Your task to perform on an android device: change the clock style Image 0: 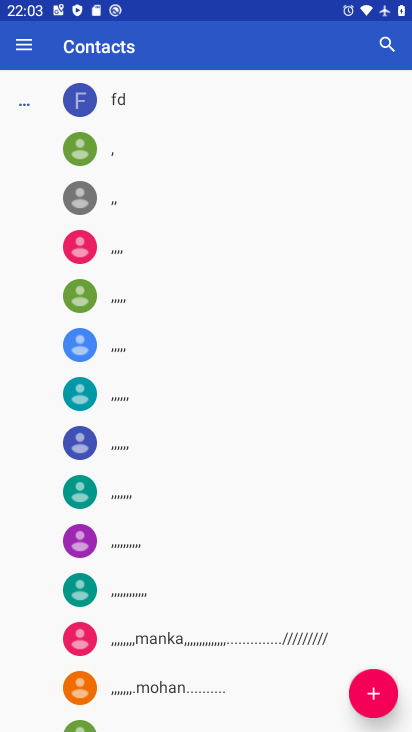
Step 0: press home button
Your task to perform on an android device: change the clock style Image 1: 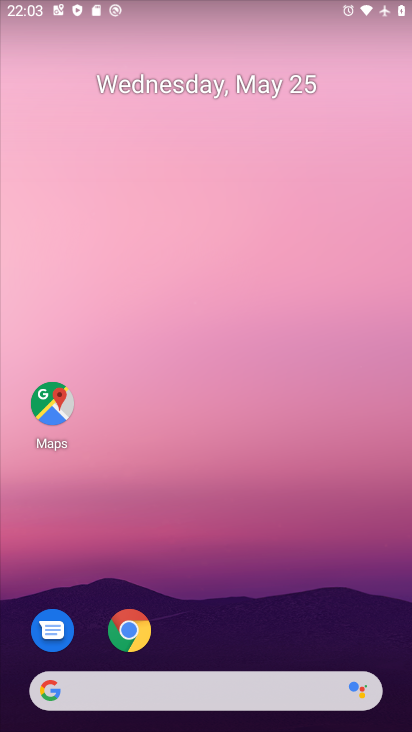
Step 1: drag from (267, 610) to (249, 224)
Your task to perform on an android device: change the clock style Image 2: 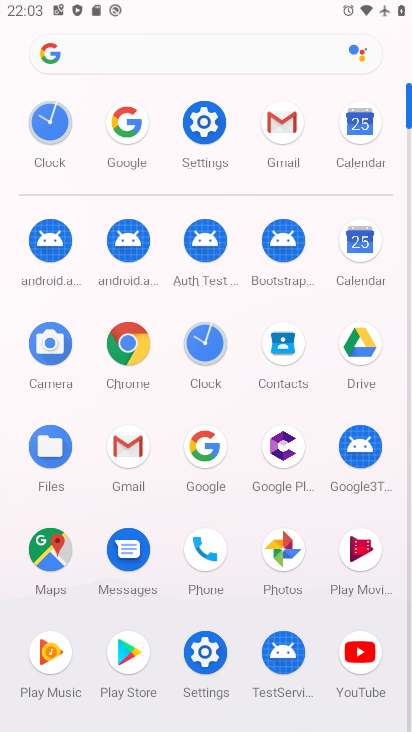
Step 2: click (212, 339)
Your task to perform on an android device: change the clock style Image 3: 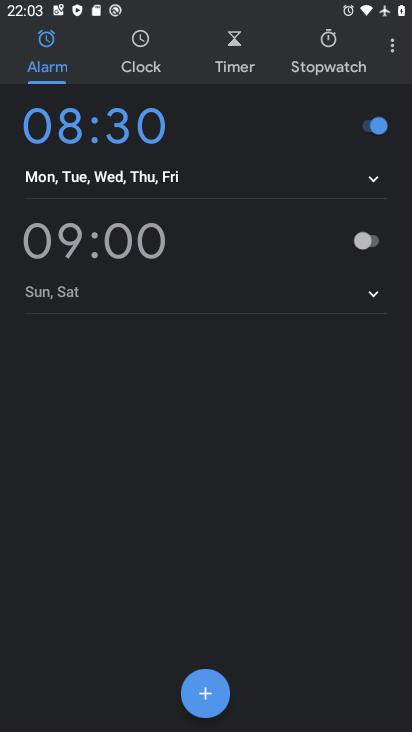
Step 3: click (386, 47)
Your task to perform on an android device: change the clock style Image 4: 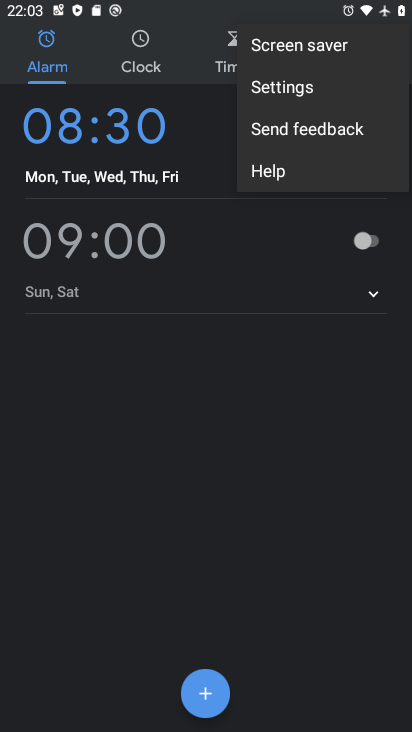
Step 4: click (303, 98)
Your task to perform on an android device: change the clock style Image 5: 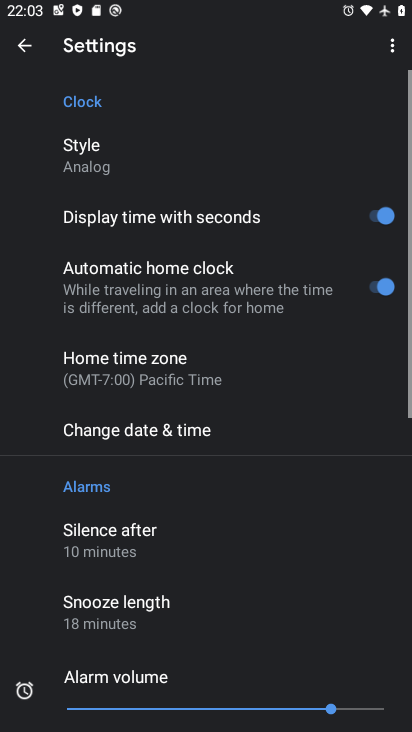
Step 5: click (209, 160)
Your task to perform on an android device: change the clock style Image 6: 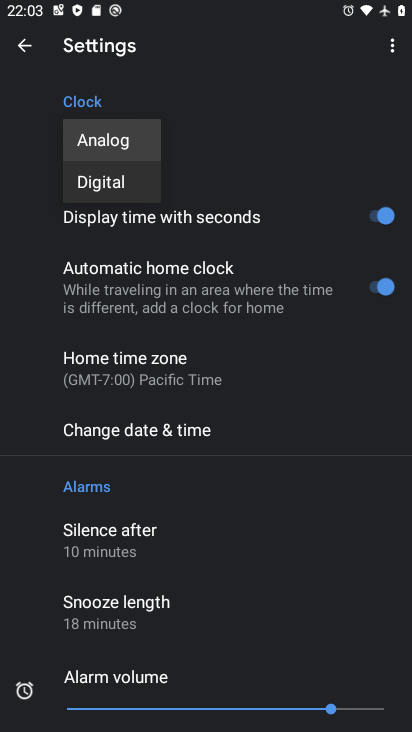
Step 6: click (129, 179)
Your task to perform on an android device: change the clock style Image 7: 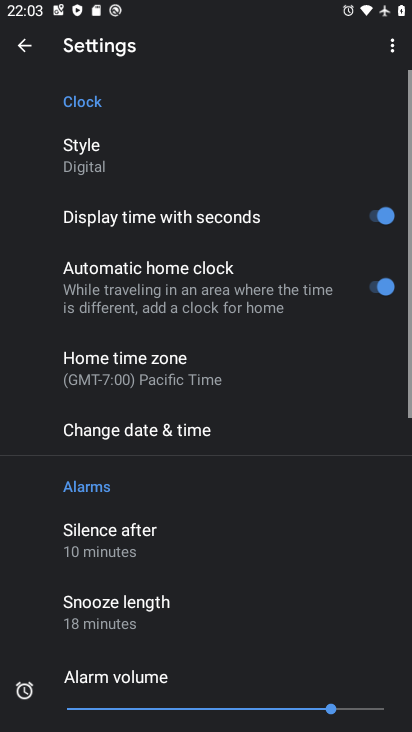
Step 7: task complete